Your task to perform on an android device: turn pop-ups on in chrome Image 0: 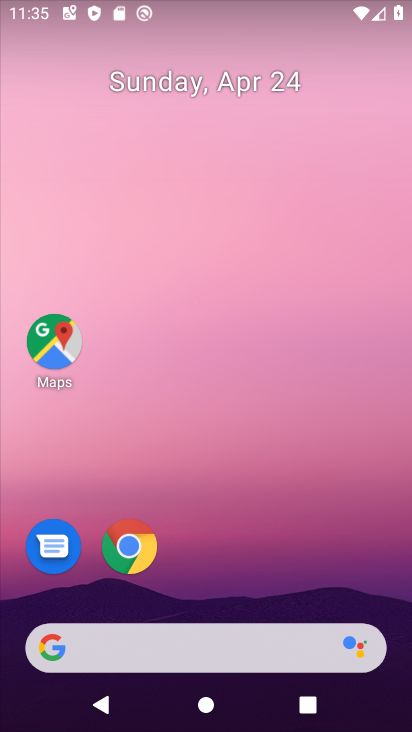
Step 0: click (140, 557)
Your task to perform on an android device: turn pop-ups on in chrome Image 1: 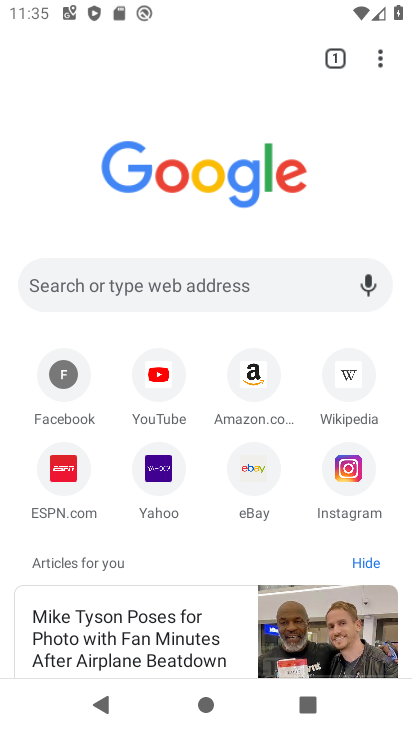
Step 1: drag from (382, 61) to (199, 483)
Your task to perform on an android device: turn pop-ups on in chrome Image 2: 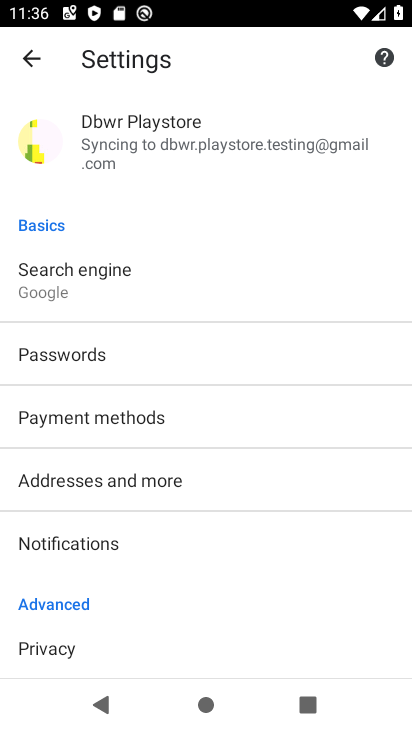
Step 2: drag from (238, 591) to (246, 407)
Your task to perform on an android device: turn pop-ups on in chrome Image 3: 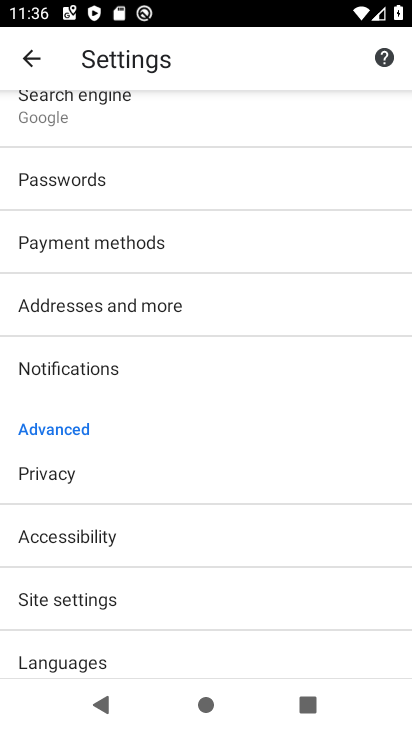
Step 3: drag from (148, 614) to (185, 438)
Your task to perform on an android device: turn pop-ups on in chrome Image 4: 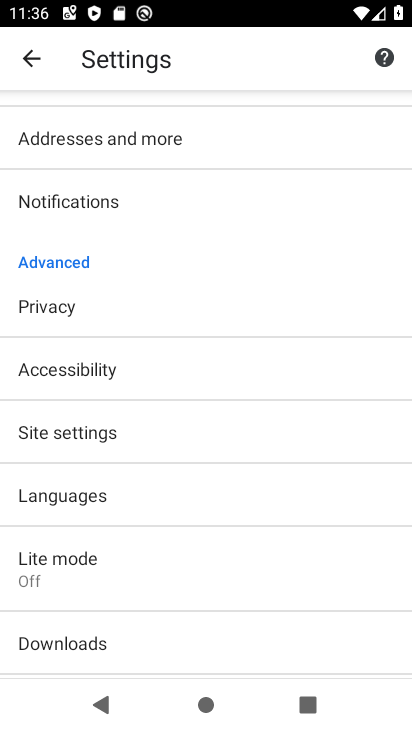
Step 4: drag from (154, 618) to (197, 467)
Your task to perform on an android device: turn pop-ups on in chrome Image 5: 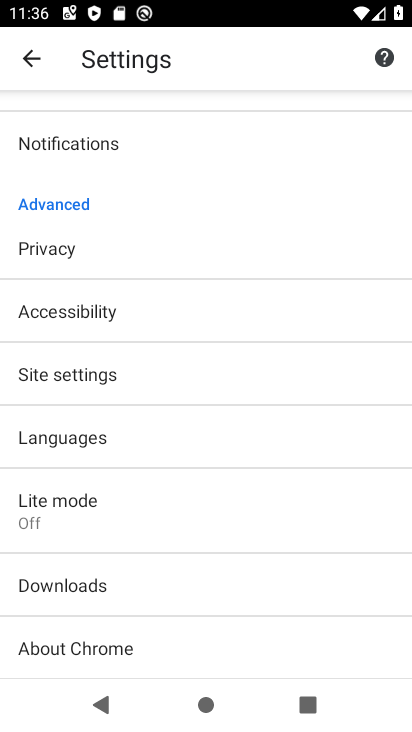
Step 5: click (107, 375)
Your task to perform on an android device: turn pop-ups on in chrome Image 6: 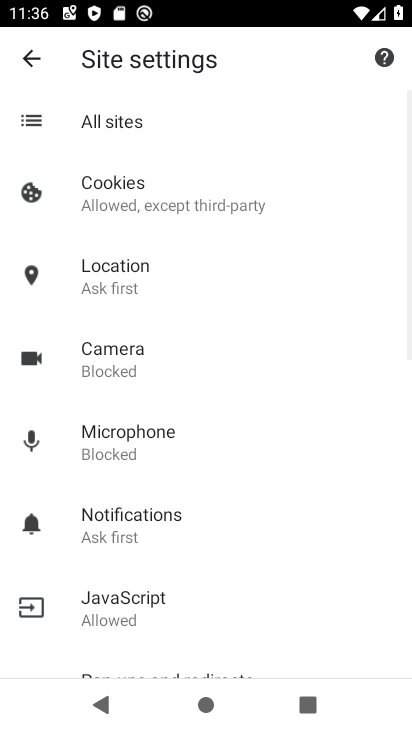
Step 6: drag from (176, 593) to (222, 311)
Your task to perform on an android device: turn pop-ups on in chrome Image 7: 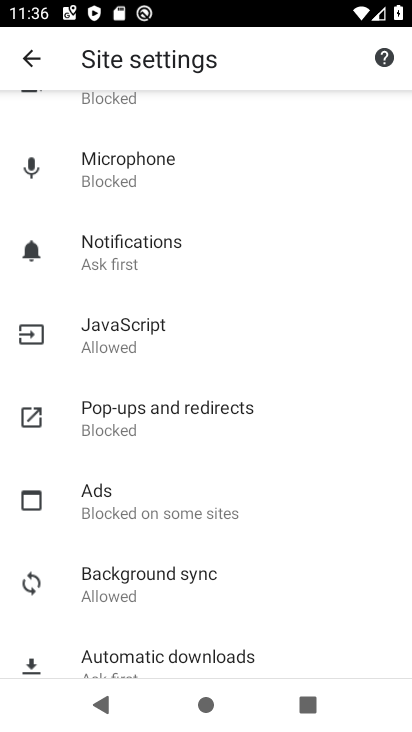
Step 7: click (197, 393)
Your task to perform on an android device: turn pop-ups on in chrome Image 8: 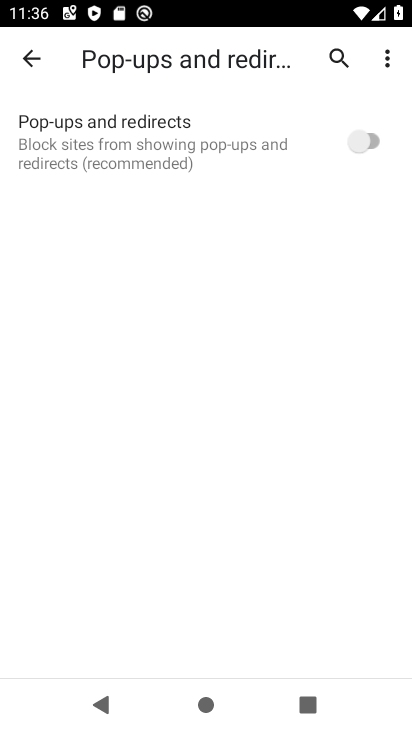
Step 8: click (371, 140)
Your task to perform on an android device: turn pop-ups on in chrome Image 9: 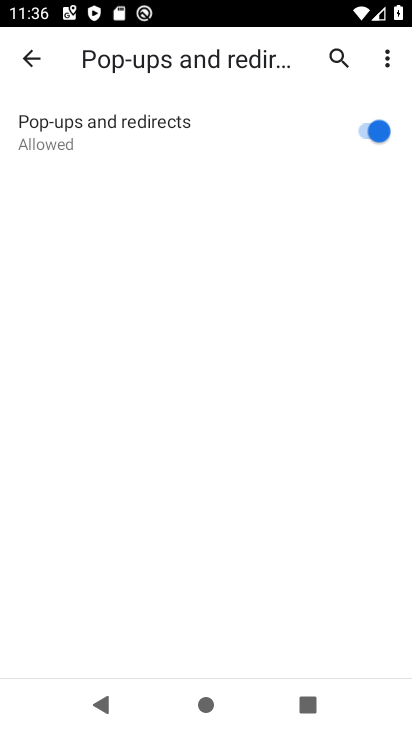
Step 9: task complete